Your task to perform on an android device: Open ESPN.com Image 0: 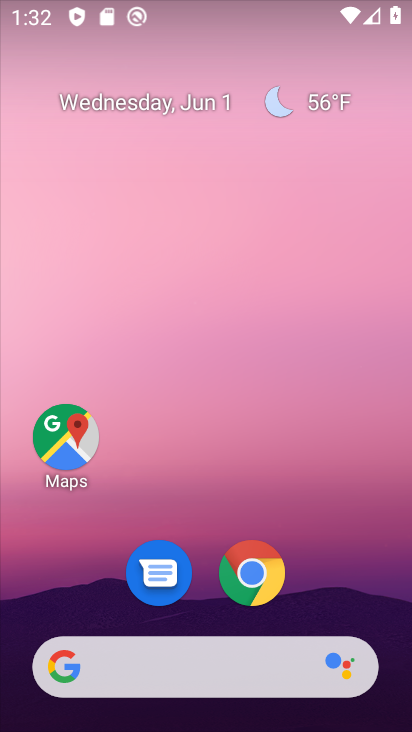
Step 0: drag from (172, 390) to (197, 120)
Your task to perform on an android device: Open ESPN.com Image 1: 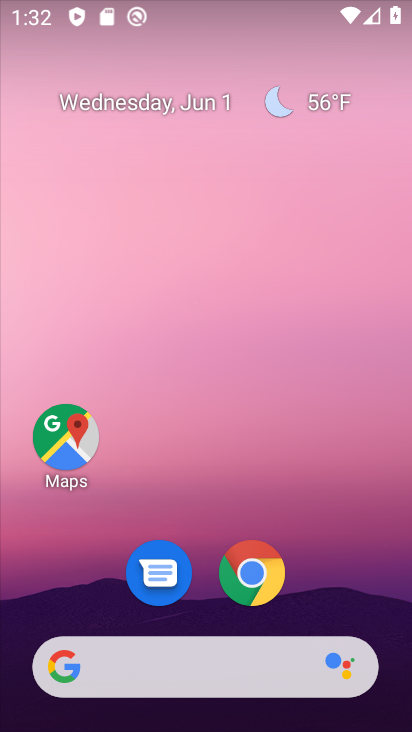
Step 1: drag from (206, 608) to (234, 123)
Your task to perform on an android device: Open ESPN.com Image 2: 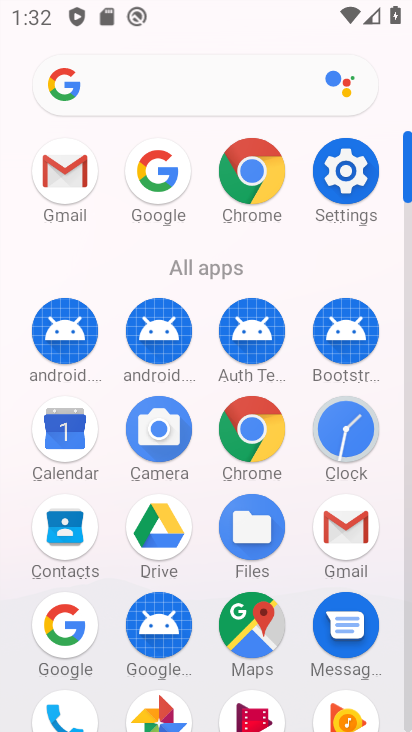
Step 2: click (131, 90)
Your task to perform on an android device: Open ESPN.com Image 3: 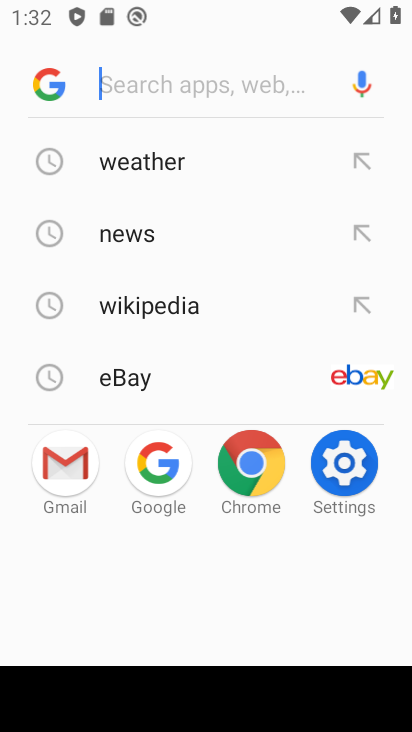
Step 3: type "ESPN.com"
Your task to perform on an android device: Open ESPN.com Image 4: 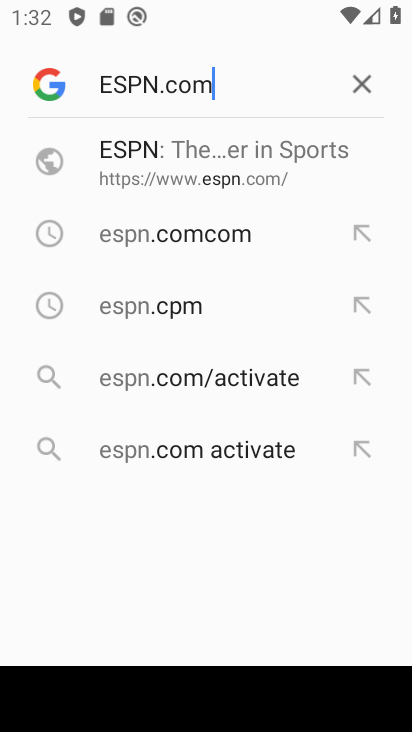
Step 4: type ""
Your task to perform on an android device: Open ESPN.com Image 5: 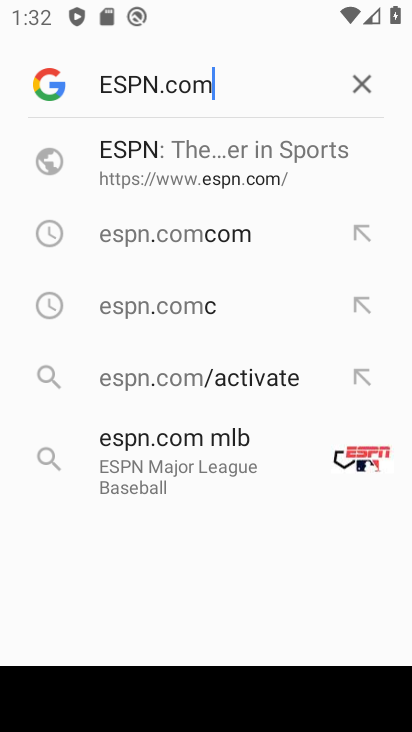
Step 5: click (167, 150)
Your task to perform on an android device: Open ESPN.com Image 6: 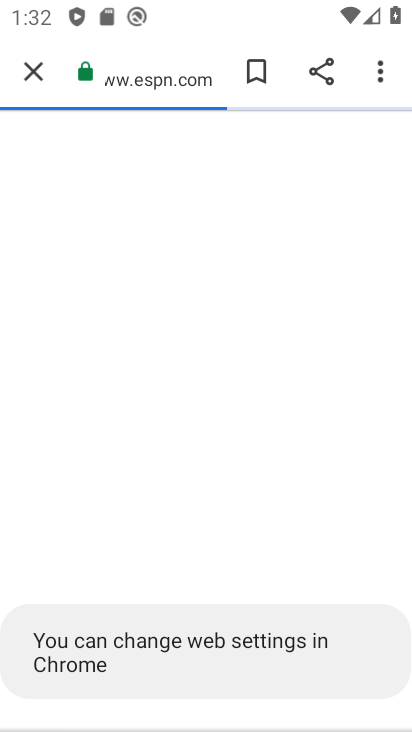
Step 6: task complete